Your task to perform on an android device: View the shopping cart on amazon.com. Search for bose soundlink mini on amazon.com, select the first entry, add it to the cart, then select checkout. Image 0: 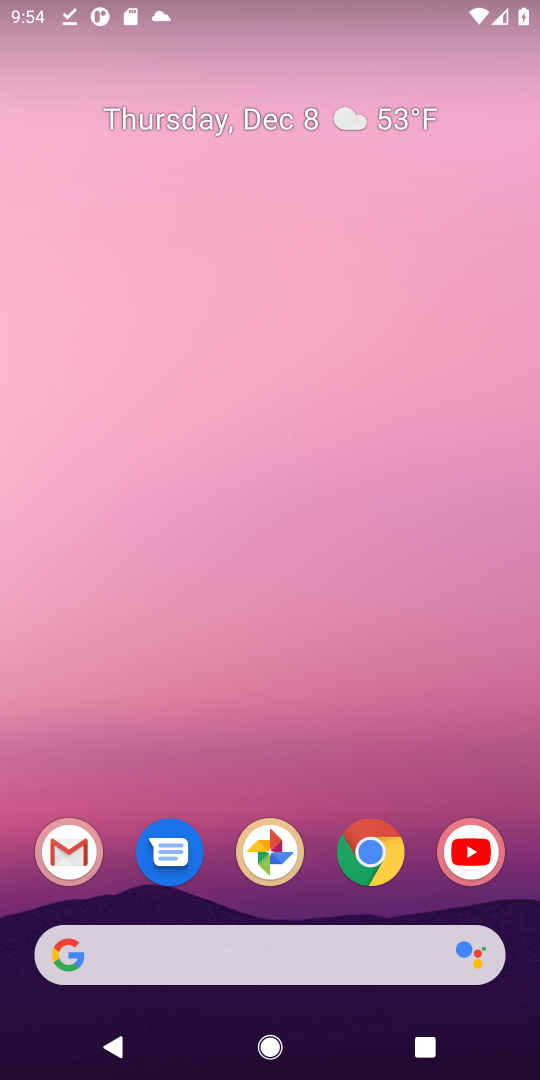
Step 0: click (197, 948)
Your task to perform on an android device: View the shopping cart on amazon.com. Search for bose soundlink mini on amazon.com, select the first entry, add it to the cart, then select checkout. Image 1: 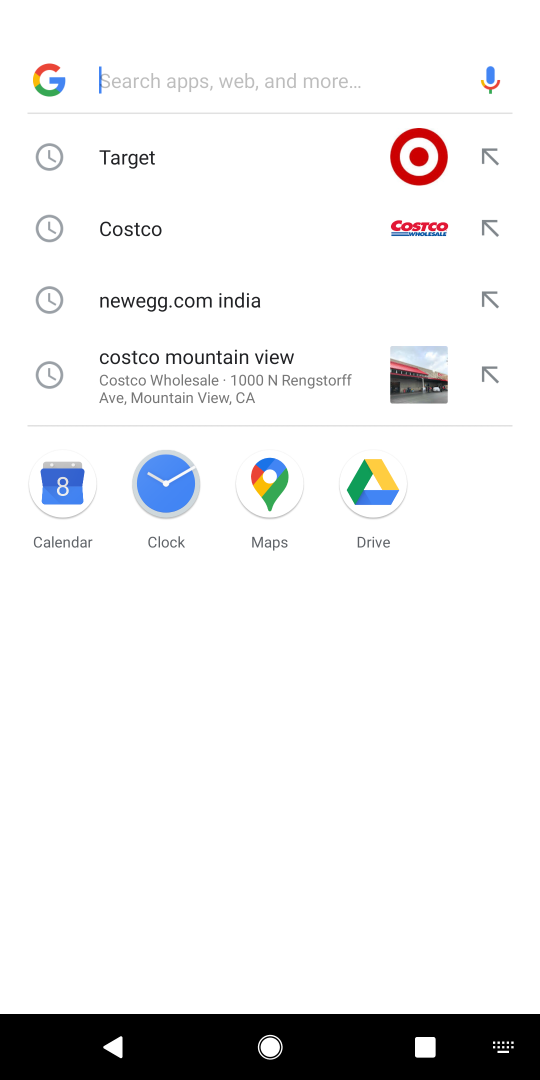
Step 1: type "amazno"
Your task to perform on an android device: View the shopping cart on amazon.com. Search for bose soundlink mini on amazon.com, select the first entry, add it to the cart, then select checkout. Image 2: 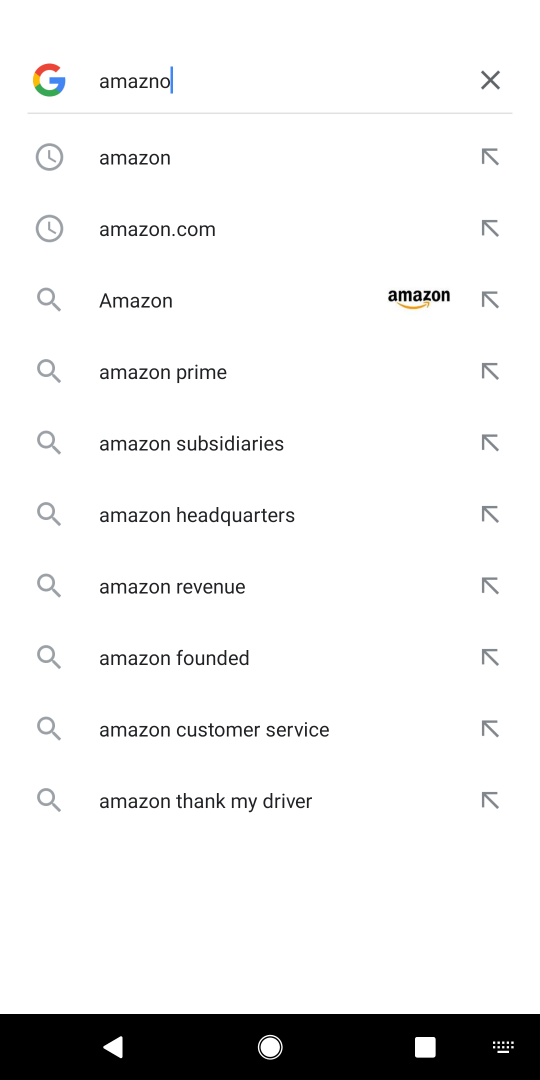
Step 2: click (156, 172)
Your task to perform on an android device: View the shopping cart on amazon.com. Search for bose soundlink mini on amazon.com, select the first entry, add it to the cart, then select checkout. Image 3: 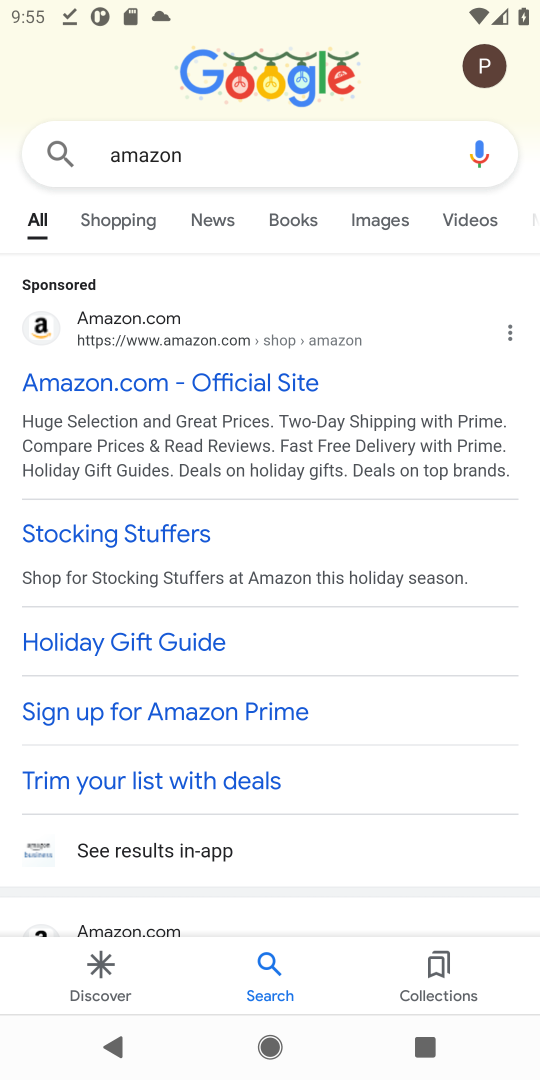
Step 3: click (148, 382)
Your task to perform on an android device: View the shopping cart on amazon.com. Search for bose soundlink mini on amazon.com, select the first entry, add it to the cart, then select checkout. Image 4: 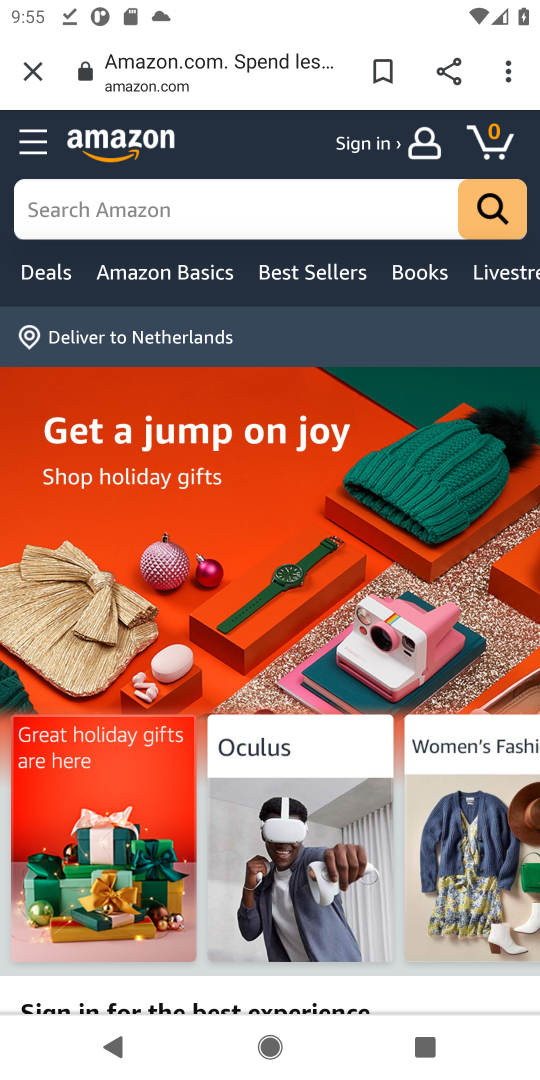
Step 4: click (142, 204)
Your task to perform on an android device: View the shopping cart on amazon.com. Search for bose soundlink mini on amazon.com, select the first entry, add it to the cart, then select checkout. Image 5: 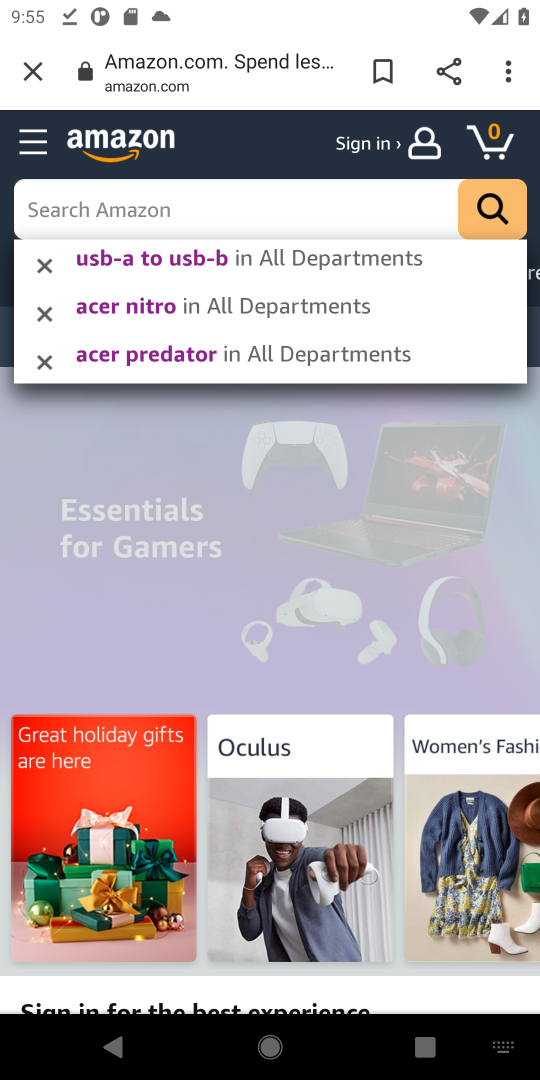
Step 5: type "bose sound link"
Your task to perform on an android device: View the shopping cart on amazon.com. Search for bose soundlink mini on amazon.com, select the first entry, add it to the cart, then select checkout. Image 6: 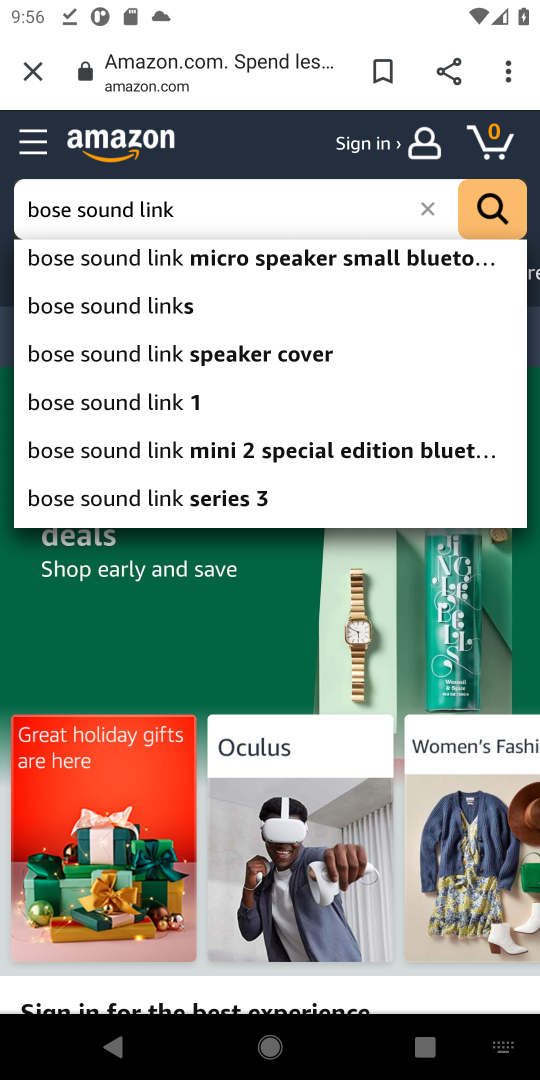
Step 6: click (489, 201)
Your task to perform on an android device: View the shopping cart on amazon.com. Search for bose soundlink mini on amazon.com, select the first entry, add it to the cart, then select checkout. Image 7: 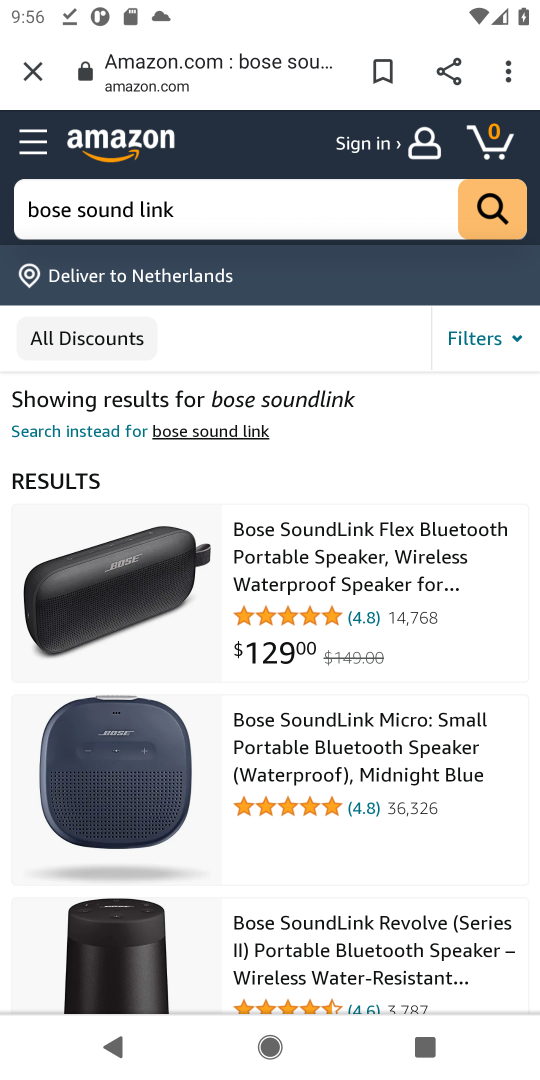
Step 7: task complete